Your task to perform on an android device: Show me popular videos on Youtube Image 0: 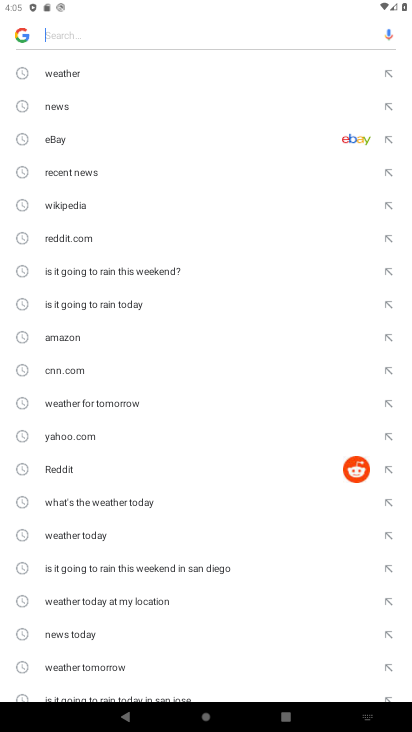
Step 0: press home button
Your task to perform on an android device: Show me popular videos on Youtube Image 1: 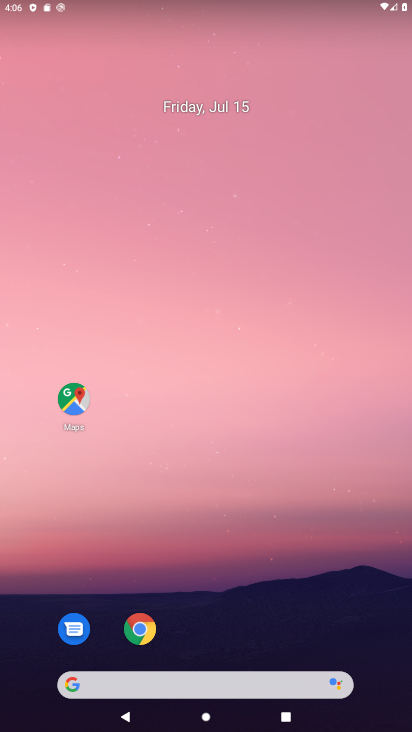
Step 1: drag from (195, 374) to (264, 60)
Your task to perform on an android device: Show me popular videos on Youtube Image 2: 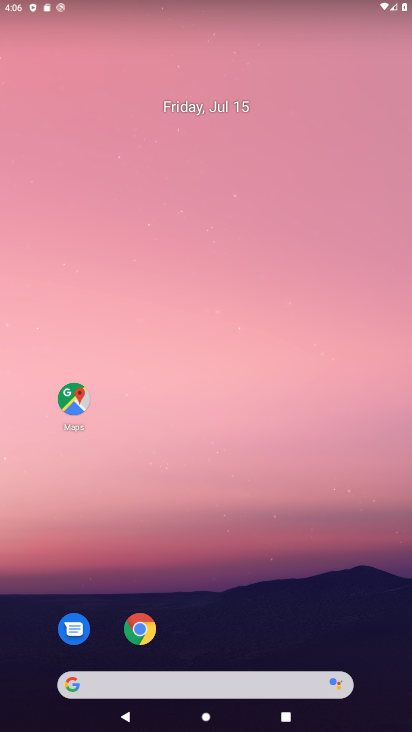
Step 2: click (247, 8)
Your task to perform on an android device: Show me popular videos on Youtube Image 3: 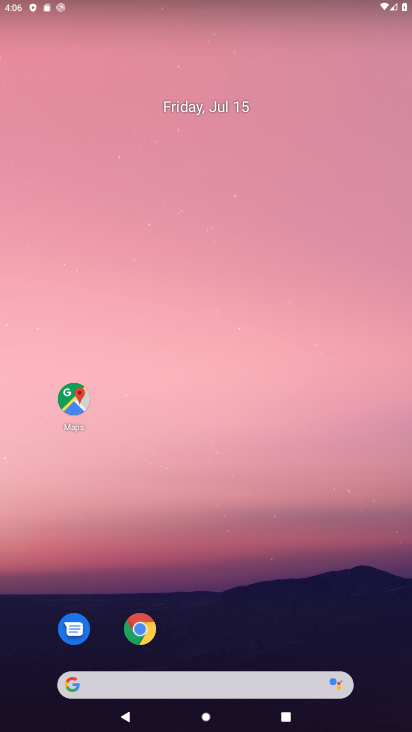
Step 3: drag from (209, 288) to (246, 106)
Your task to perform on an android device: Show me popular videos on Youtube Image 4: 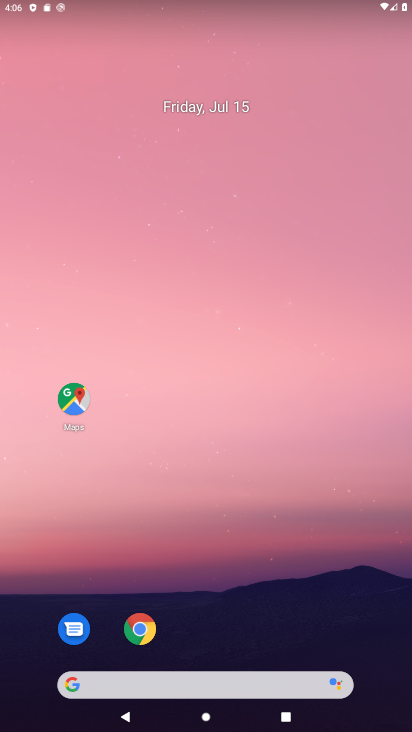
Step 4: drag from (209, 582) to (221, 244)
Your task to perform on an android device: Show me popular videos on Youtube Image 5: 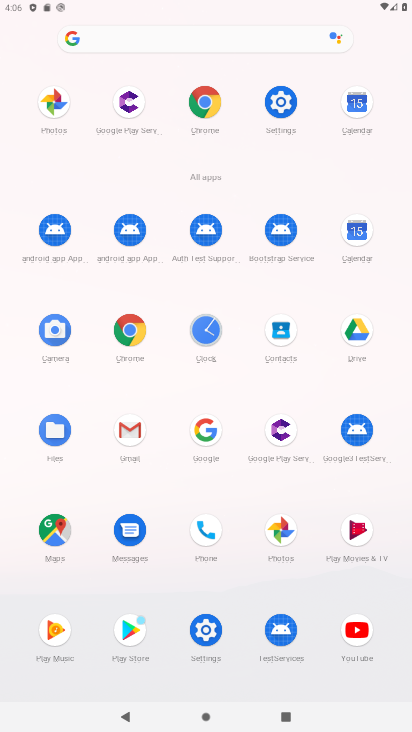
Step 5: click (358, 641)
Your task to perform on an android device: Show me popular videos on Youtube Image 6: 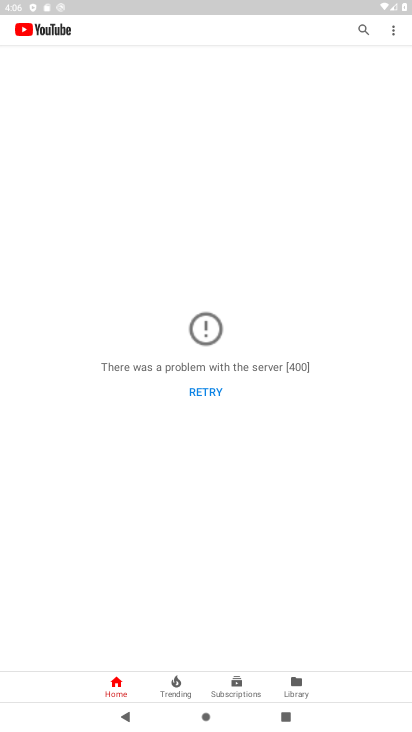
Step 6: task complete